Your task to perform on an android device: Is it going to rain today? Image 0: 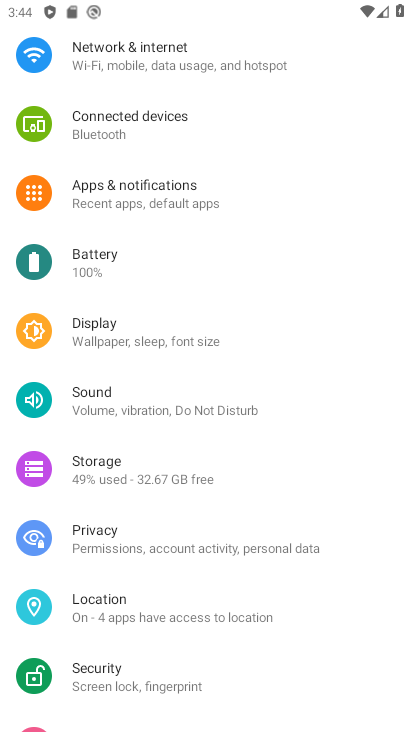
Step 0: press home button
Your task to perform on an android device: Is it going to rain today? Image 1: 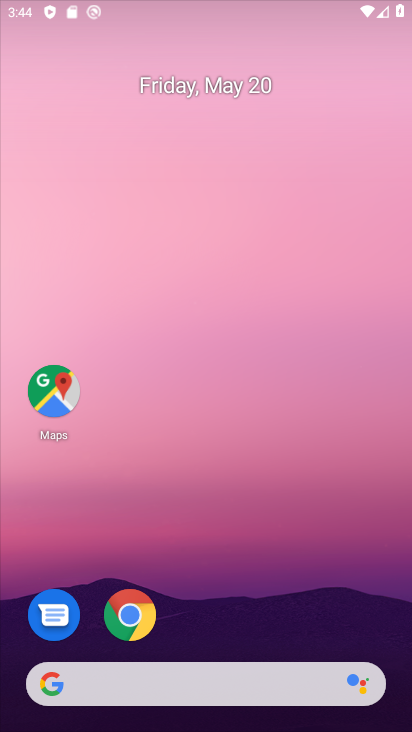
Step 1: drag from (242, 659) to (296, 148)
Your task to perform on an android device: Is it going to rain today? Image 2: 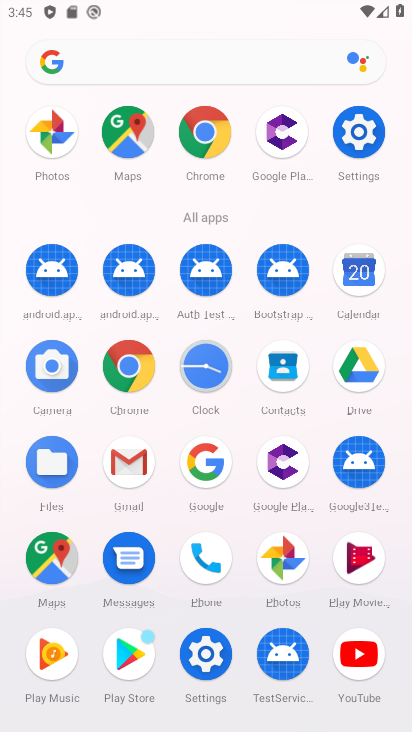
Step 2: click (209, 484)
Your task to perform on an android device: Is it going to rain today? Image 3: 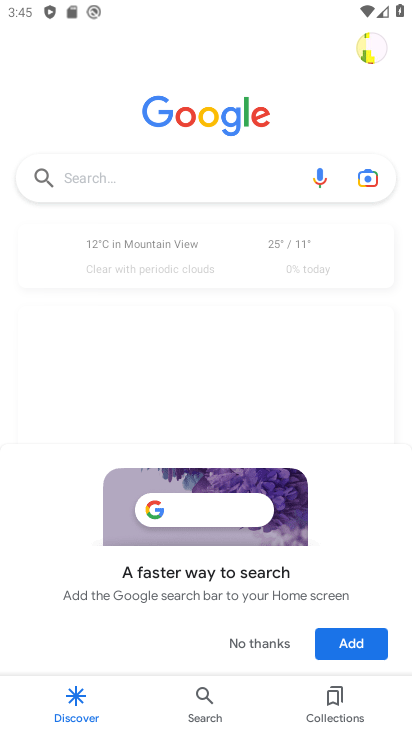
Step 3: click (192, 165)
Your task to perform on an android device: Is it going to rain today? Image 4: 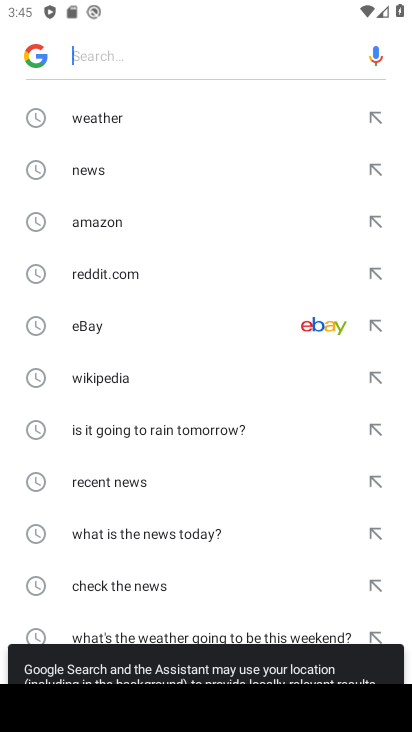
Step 4: click (192, 116)
Your task to perform on an android device: Is it going to rain today? Image 5: 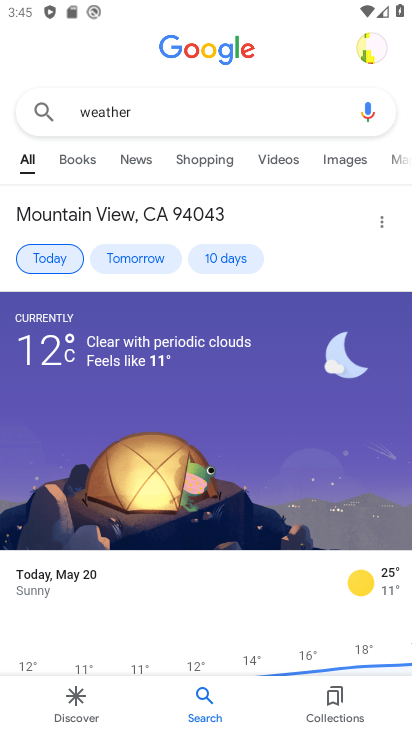
Step 5: task complete